Your task to perform on an android device: check google app version Image 0: 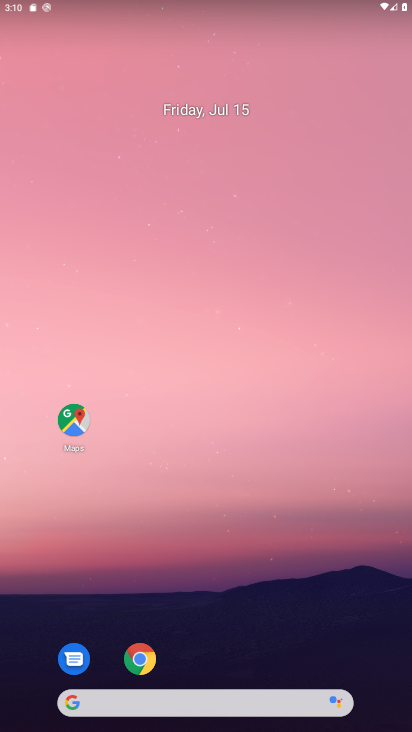
Step 0: drag from (307, 621) to (211, 83)
Your task to perform on an android device: check google app version Image 1: 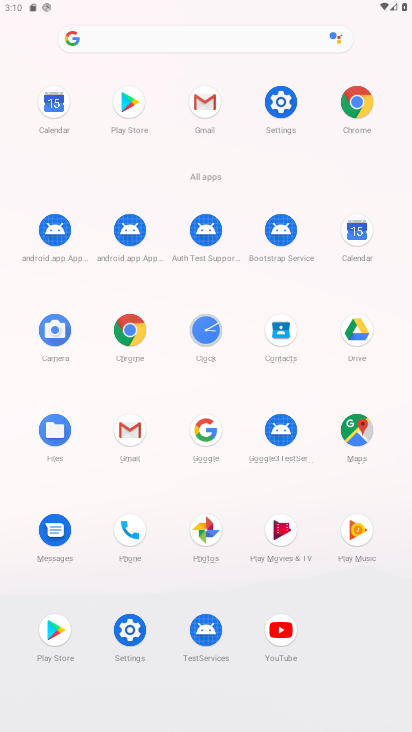
Step 1: click (200, 431)
Your task to perform on an android device: check google app version Image 2: 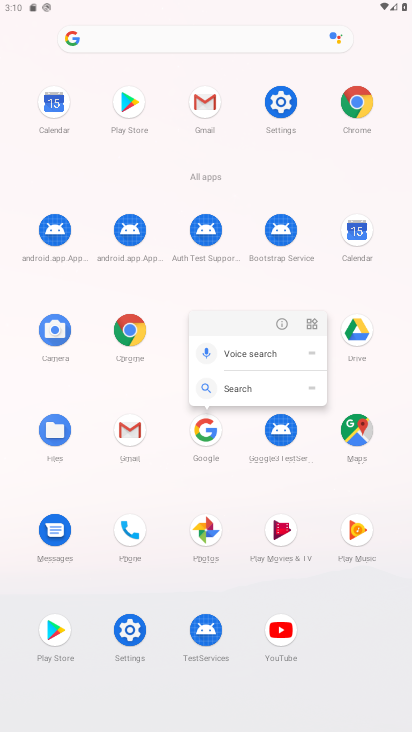
Step 2: click (278, 324)
Your task to perform on an android device: check google app version Image 3: 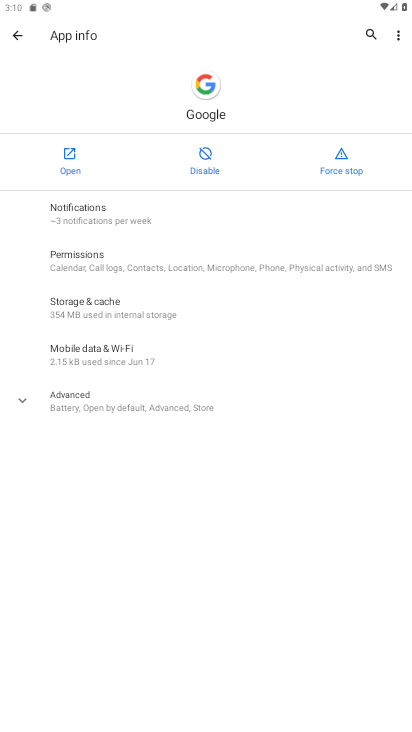
Step 3: click (105, 408)
Your task to perform on an android device: check google app version Image 4: 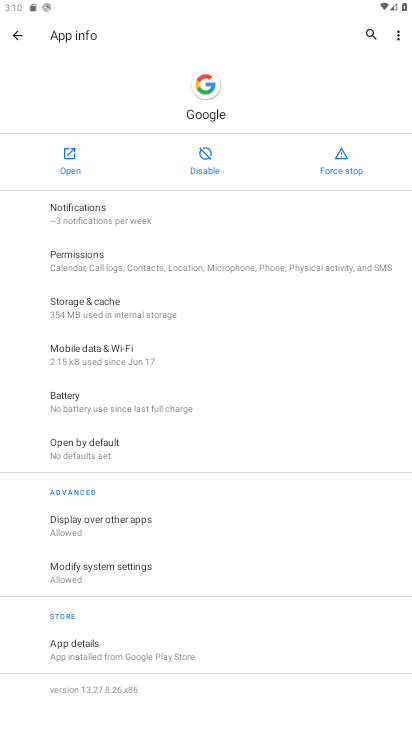
Step 4: task complete